Your task to perform on an android device: open device folders in google photos Image 0: 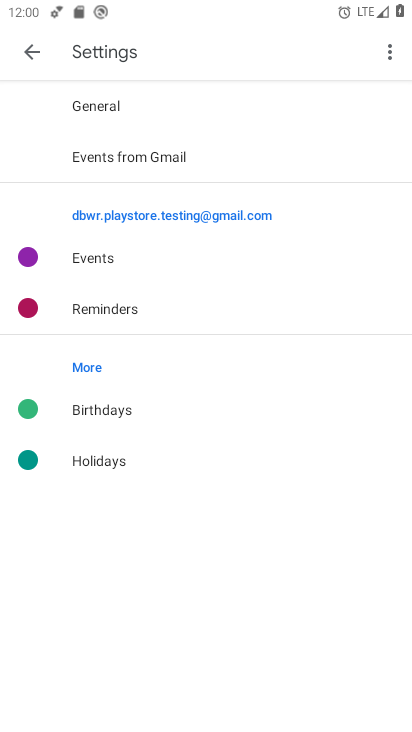
Step 0: press home button
Your task to perform on an android device: open device folders in google photos Image 1: 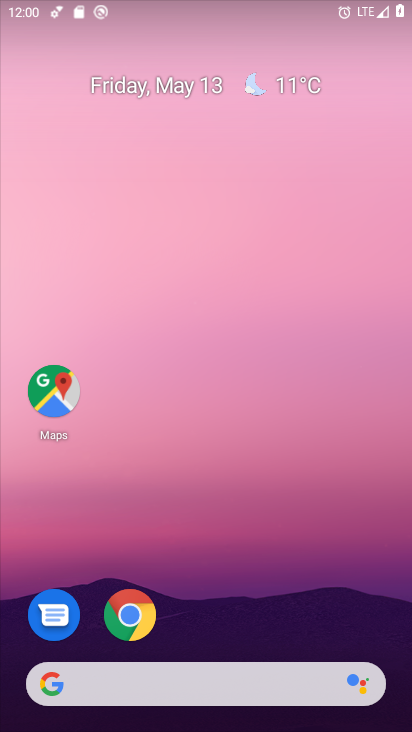
Step 1: drag from (252, 546) to (273, 21)
Your task to perform on an android device: open device folders in google photos Image 2: 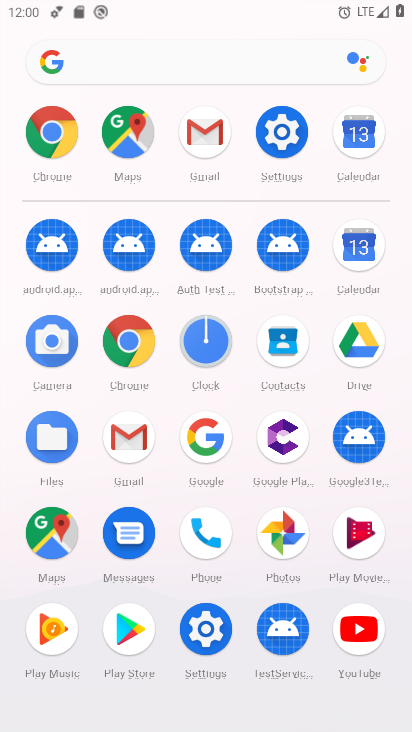
Step 2: click (270, 522)
Your task to perform on an android device: open device folders in google photos Image 3: 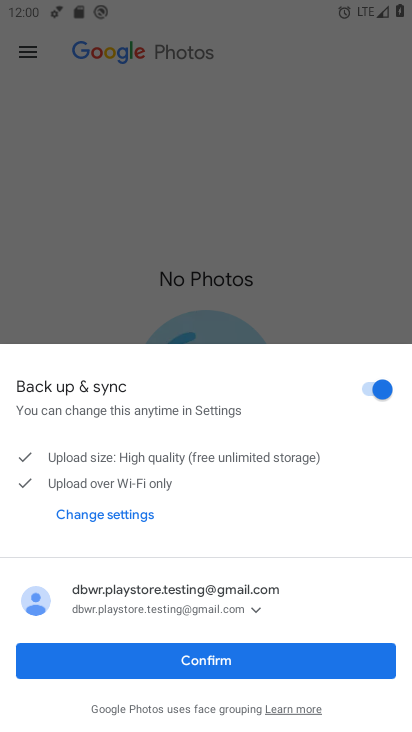
Step 3: click (268, 653)
Your task to perform on an android device: open device folders in google photos Image 4: 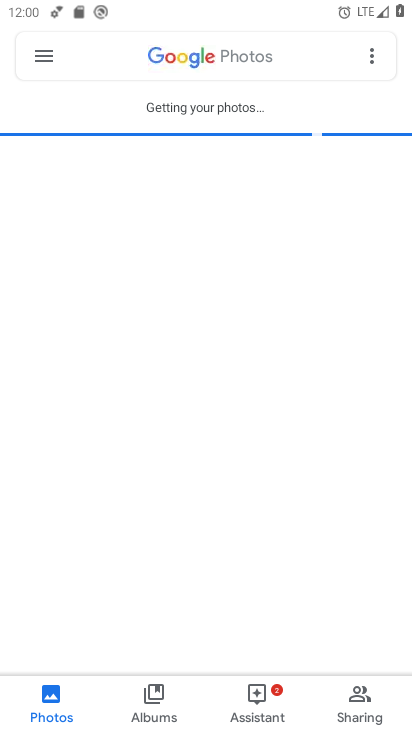
Step 4: click (43, 46)
Your task to perform on an android device: open device folders in google photos Image 5: 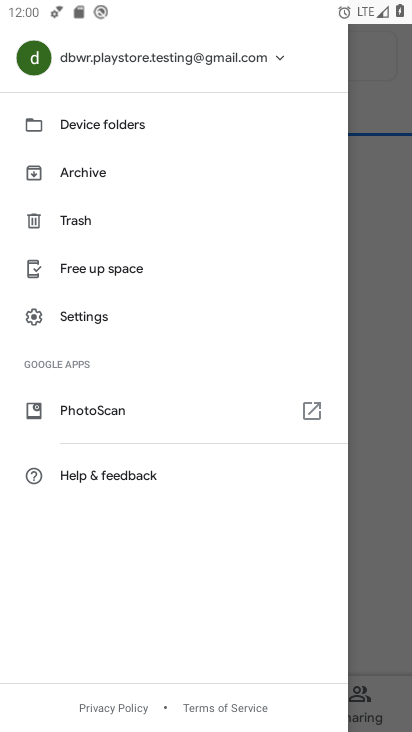
Step 5: click (73, 112)
Your task to perform on an android device: open device folders in google photos Image 6: 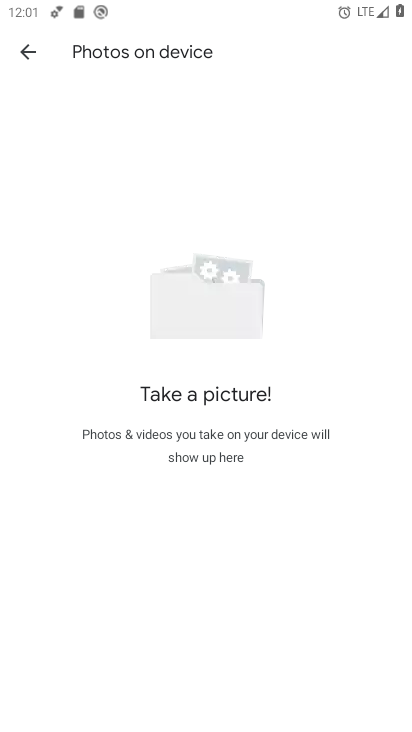
Step 6: task complete